Your task to perform on an android device: turn on translation in the chrome app Image 0: 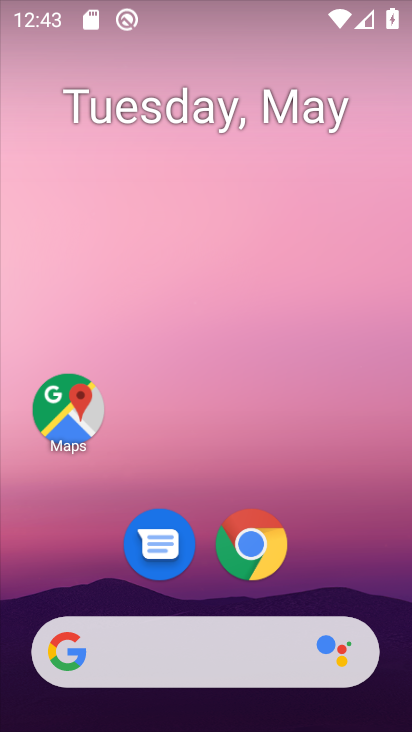
Step 0: drag from (326, 551) to (315, 88)
Your task to perform on an android device: turn on translation in the chrome app Image 1: 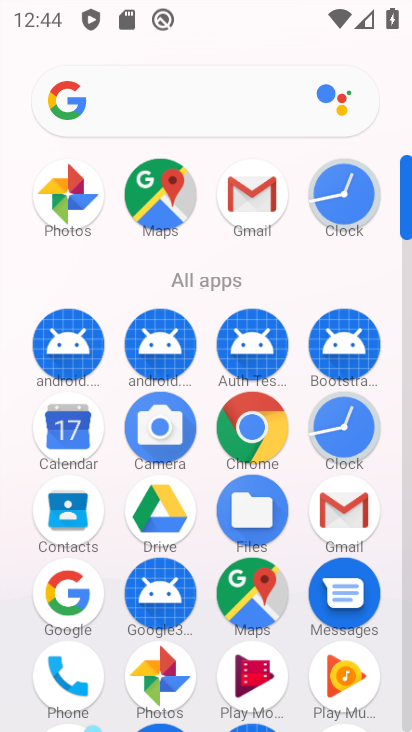
Step 1: click (266, 437)
Your task to perform on an android device: turn on translation in the chrome app Image 2: 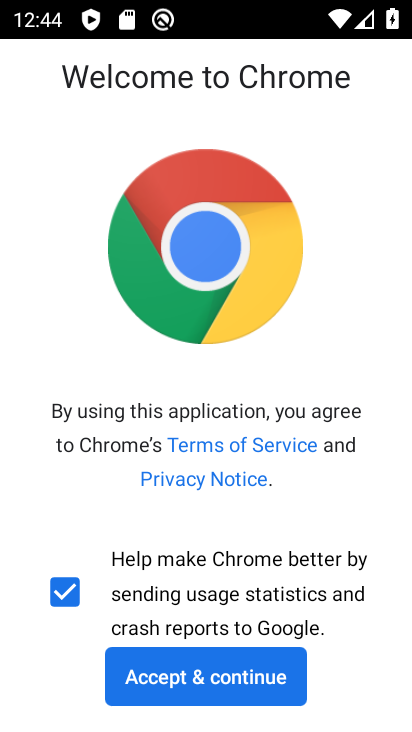
Step 2: click (268, 683)
Your task to perform on an android device: turn on translation in the chrome app Image 3: 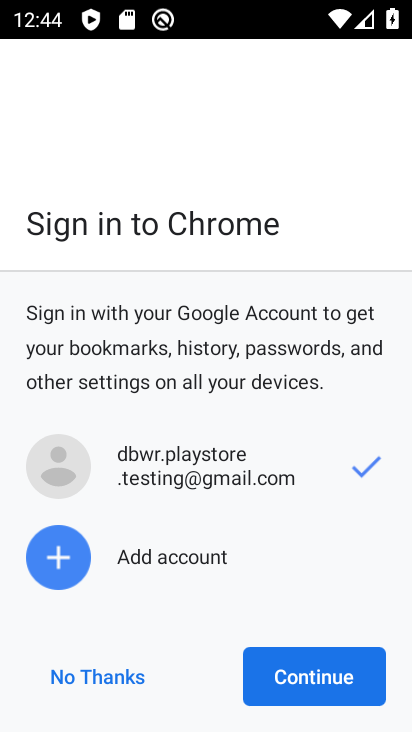
Step 3: click (268, 683)
Your task to perform on an android device: turn on translation in the chrome app Image 4: 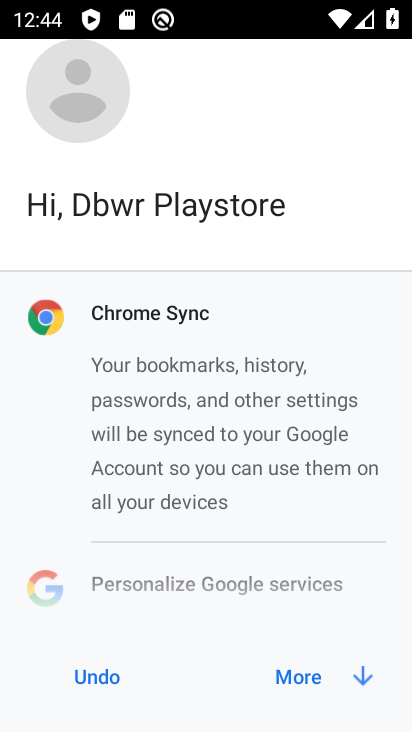
Step 4: click (268, 682)
Your task to perform on an android device: turn on translation in the chrome app Image 5: 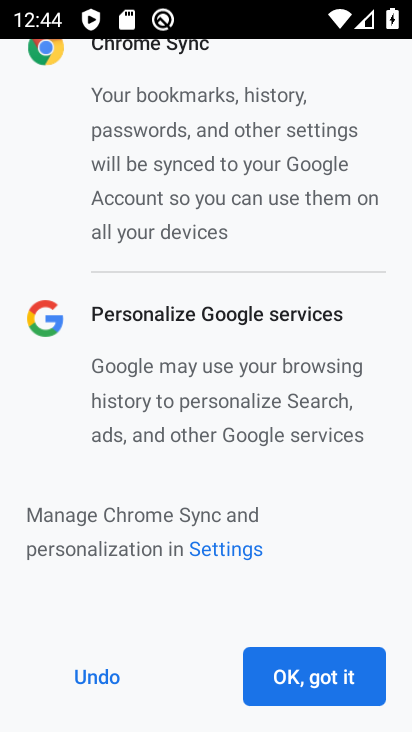
Step 5: click (268, 682)
Your task to perform on an android device: turn on translation in the chrome app Image 6: 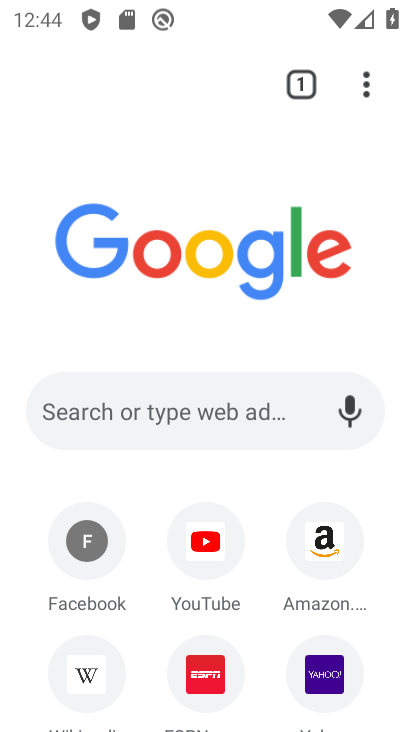
Step 6: drag from (368, 96) to (217, 589)
Your task to perform on an android device: turn on translation in the chrome app Image 7: 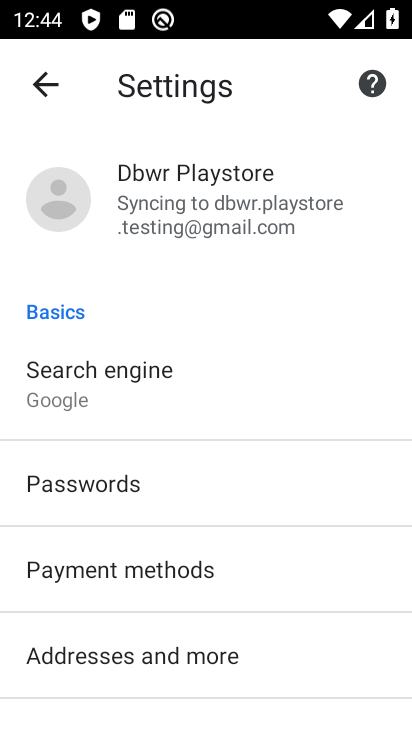
Step 7: drag from (314, 665) to (309, 316)
Your task to perform on an android device: turn on translation in the chrome app Image 8: 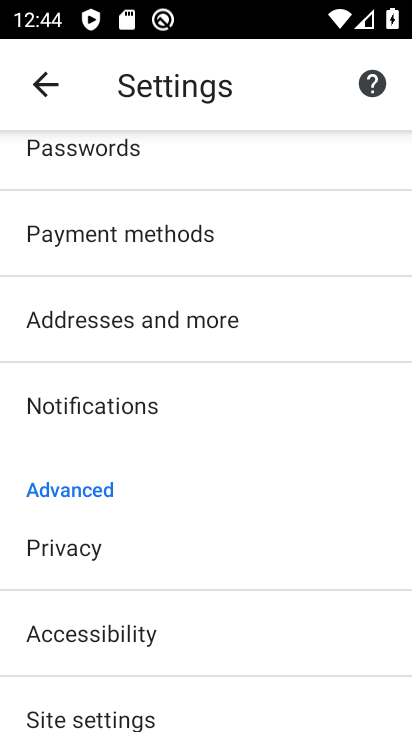
Step 8: drag from (222, 680) to (282, 371)
Your task to perform on an android device: turn on translation in the chrome app Image 9: 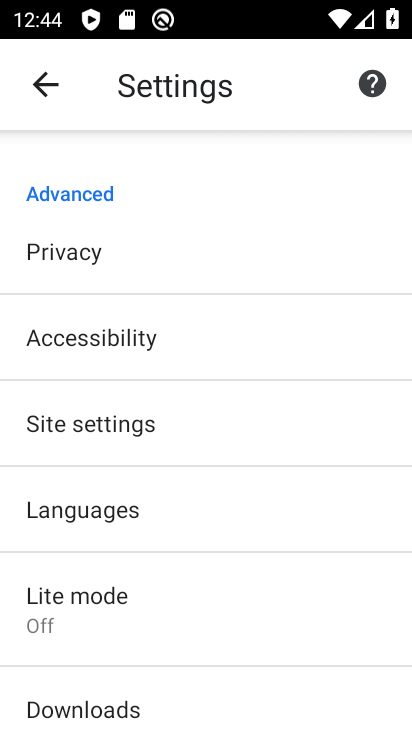
Step 9: drag from (193, 708) to (238, 368)
Your task to perform on an android device: turn on translation in the chrome app Image 10: 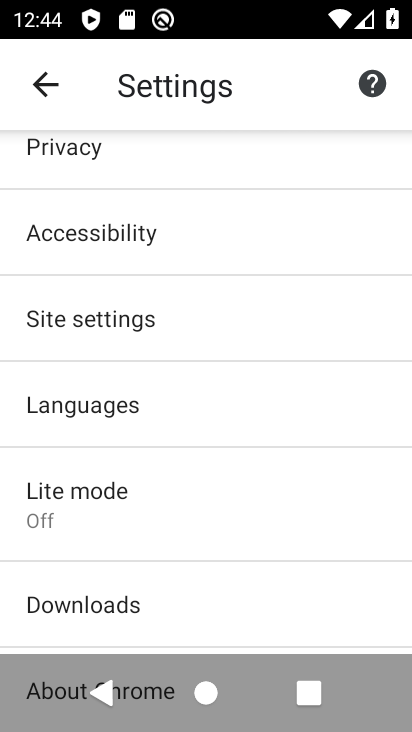
Step 10: drag from (219, 605) to (255, 266)
Your task to perform on an android device: turn on translation in the chrome app Image 11: 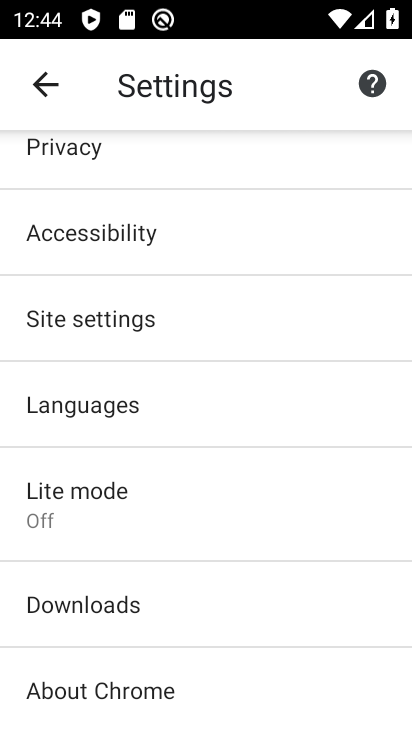
Step 11: click (164, 413)
Your task to perform on an android device: turn on translation in the chrome app Image 12: 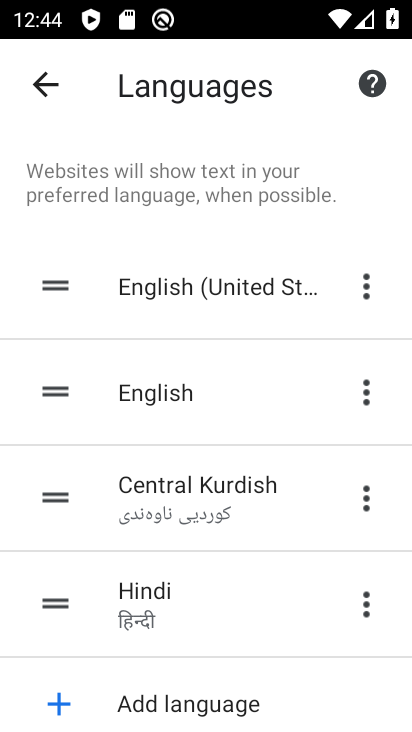
Step 12: drag from (340, 677) to (327, 253)
Your task to perform on an android device: turn on translation in the chrome app Image 13: 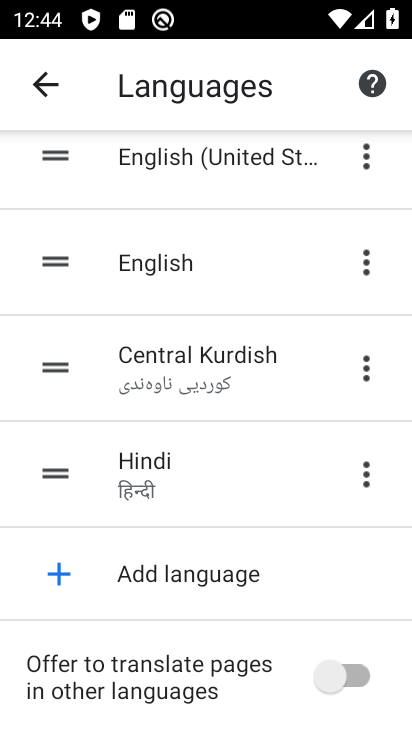
Step 13: drag from (311, 618) to (300, 301)
Your task to perform on an android device: turn on translation in the chrome app Image 14: 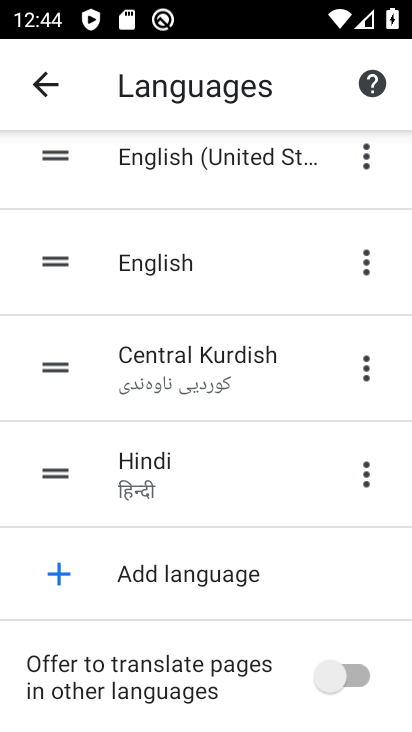
Step 14: click (364, 683)
Your task to perform on an android device: turn on translation in the chrome app Image 15: 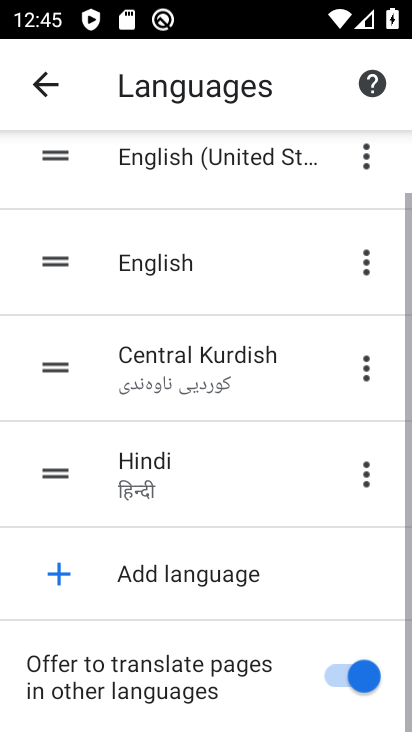
Step 15: task complete